Your task to perform on an android device: Show the shopping cart on ebay.com. Add amazon basics triple a to the cart on ebay.com, then select checkout. Image 0: 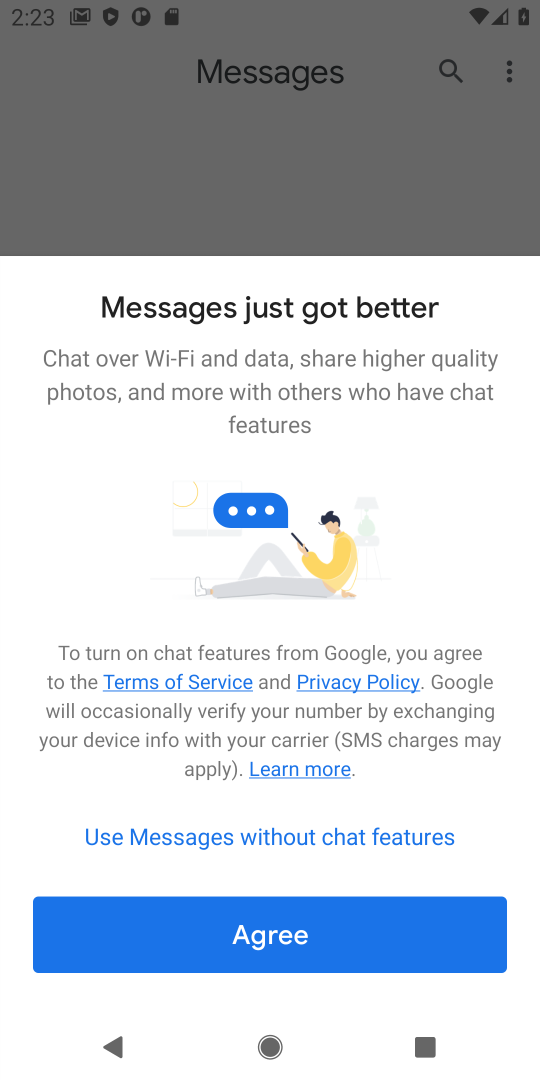
Step 0: press home button
Your task to perform on an android device: Show the shopping cart on ebay.com. Add amazon basics triple a to the cart on ebay.com, then select checkout. Image 1: 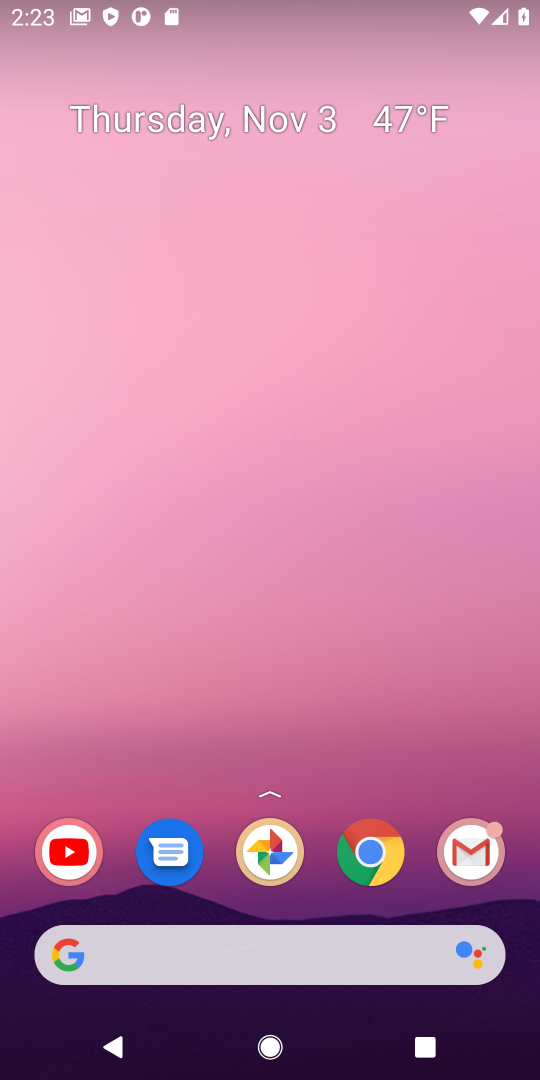
Step 1: click (370, 856)
Your task to perform on an android device: Show the shopping cart on ebay.com. Add amazon basics triple a to the cart on ebay.com, then select checkout. Image 2: 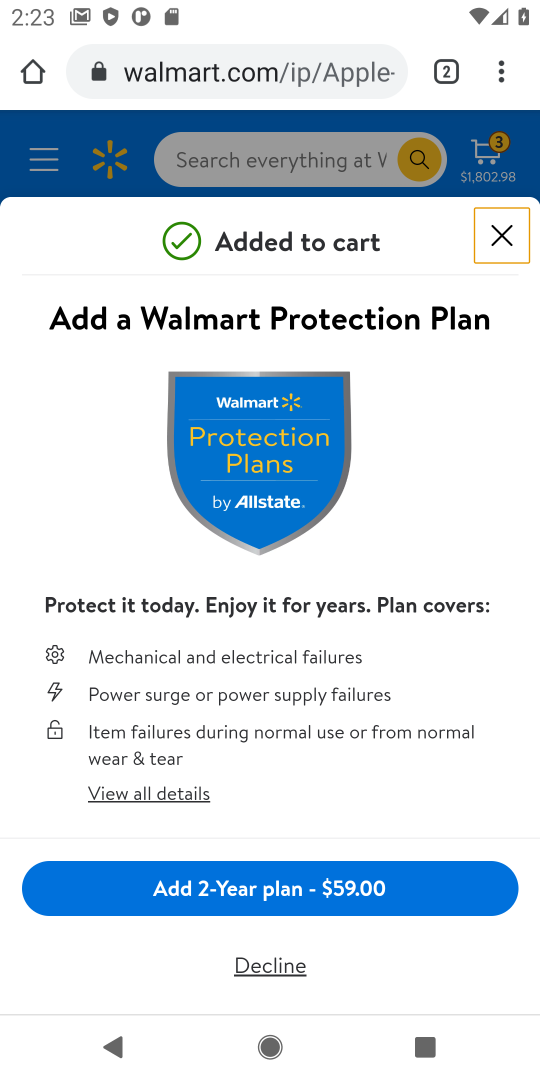
Step 2: click (195, 86)
Your task to perform on an android device: Show the shopping cart on ebay.com. Add amazon basics triple a to the cart on ebay.com, then select checkout. Image 3: 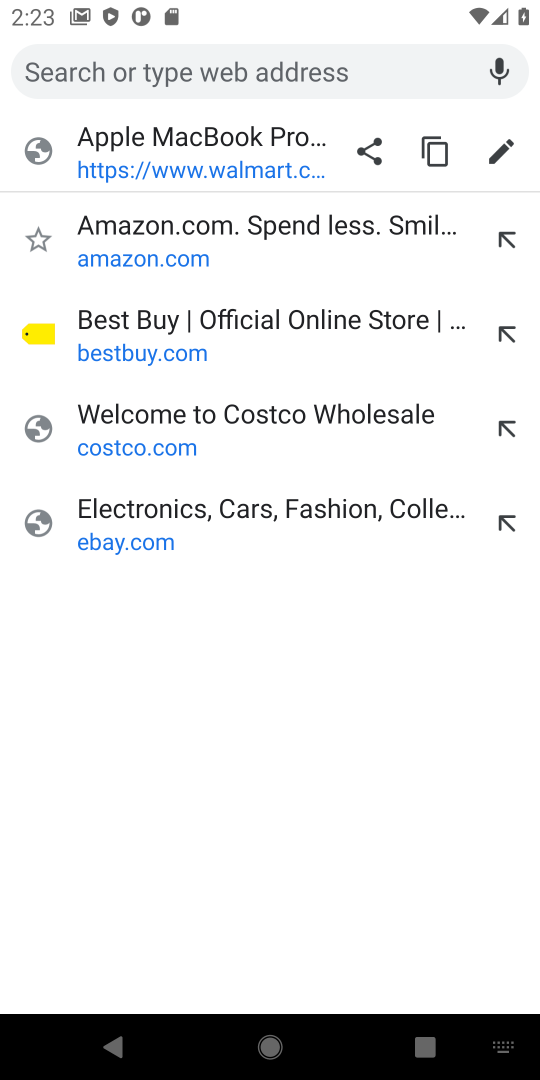
Step 3: click (108, 535)
Your task to perform on an android device: Show the shopping cart on ebay.com. Add amazon basics triple a to the cart on ebay.com, then select checkout. Image 4: 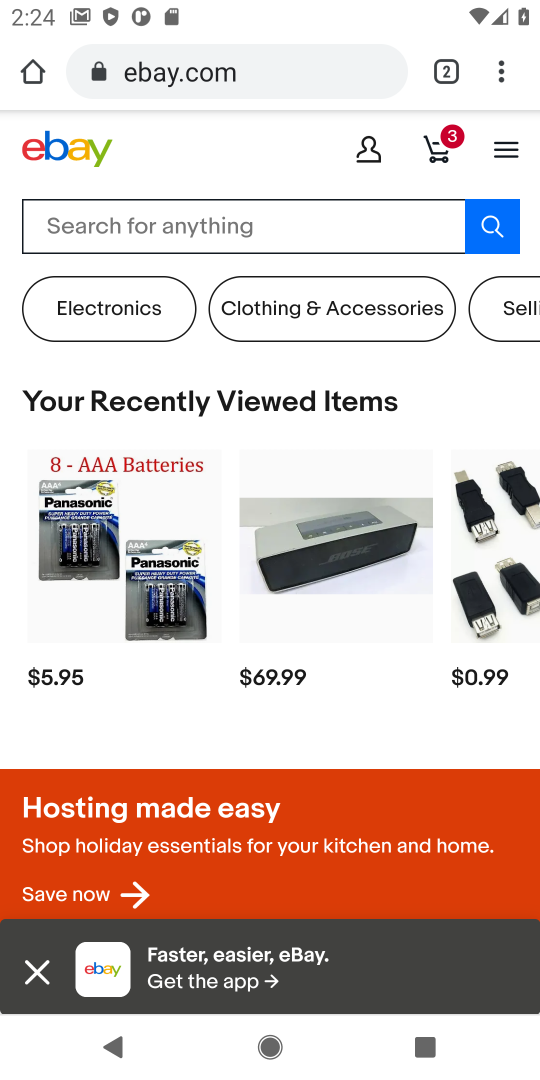
Step 4: click (443, 157)
Your task to perform on an android device: Show the shopping cart on ebay.com. Add amazon basics triple a to the cart on ebay.com, then select checkout. Image 5: 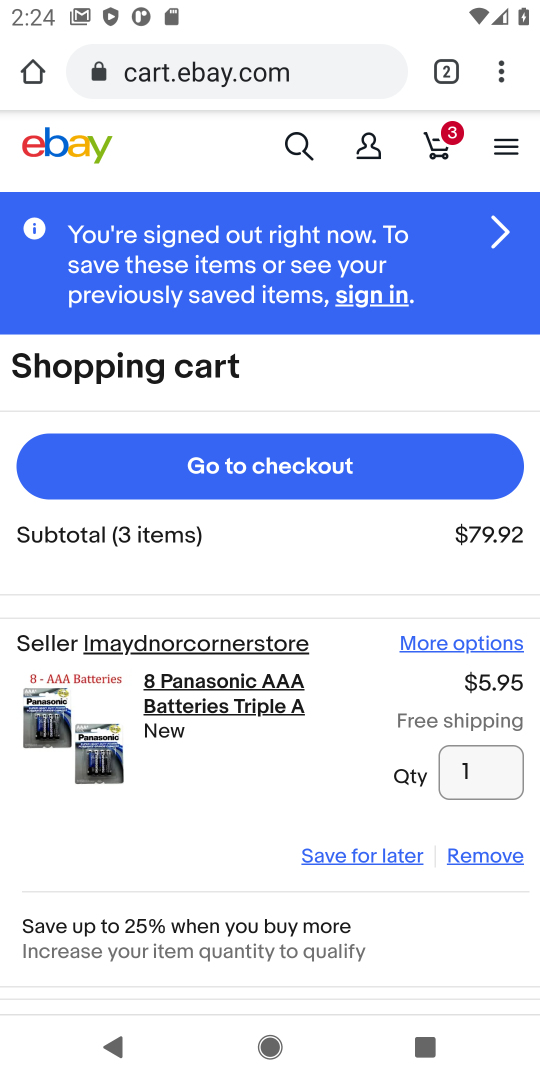
Step 5: click (306, 147)
Your task to perform on an android device: Show the shopping cart on ebay.com. Add amazon basics triple a to the cart on ebay.com, then select checkout. Image 6: 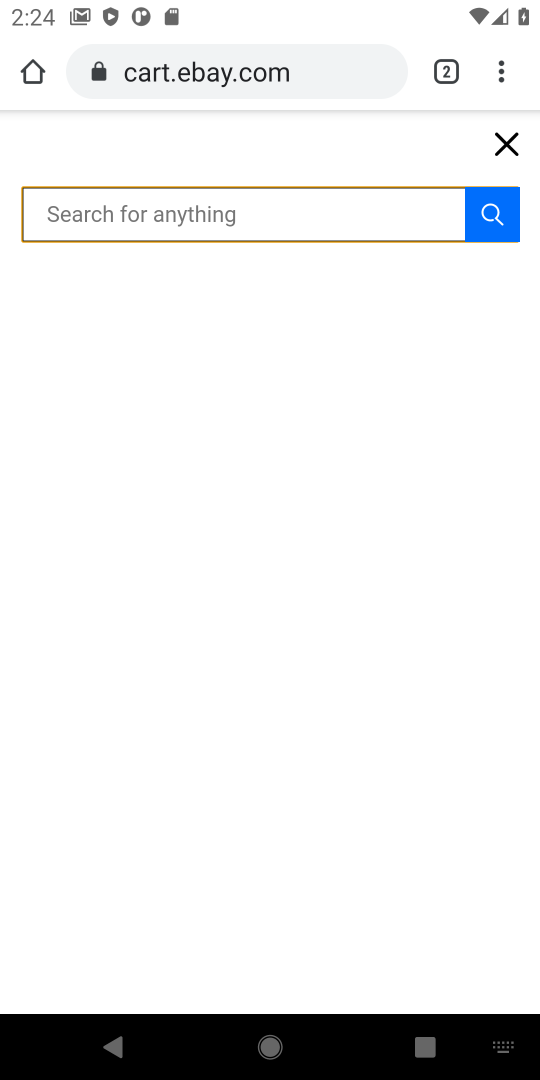
Step 6: type "amazon basics triple a"
Your task to perform on an android device: Show the shopping cart on ebay.com. Add amazon basics triple a to the cart on ebay.com, then select checkout. Image 7: 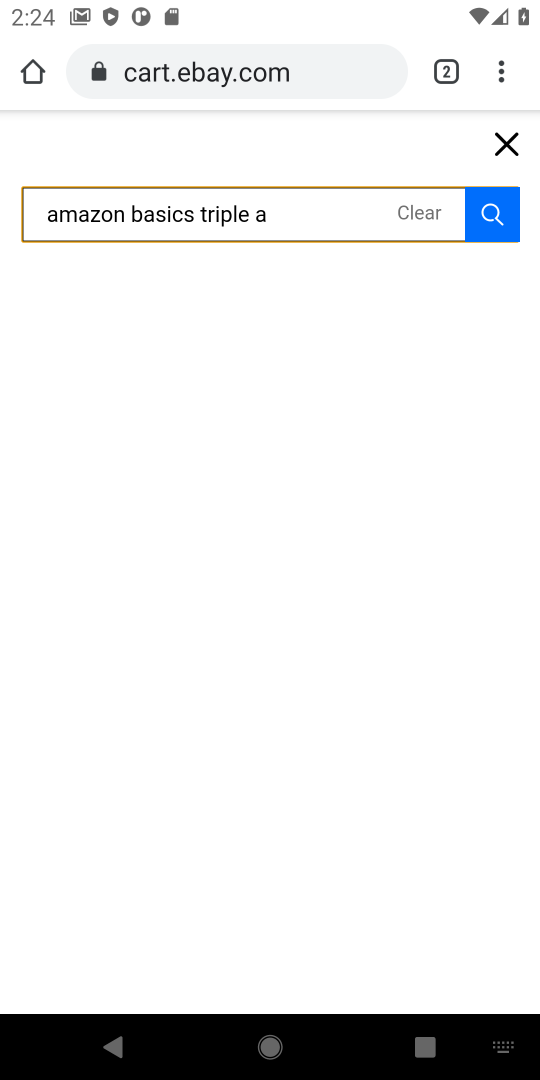
Step 7: click (501, 216)
Your task to perform on an android device: Show the shopping cart on ebay.com. Add amazon basics triple a to the cart on ebay.com, then select checkout. Image 8: 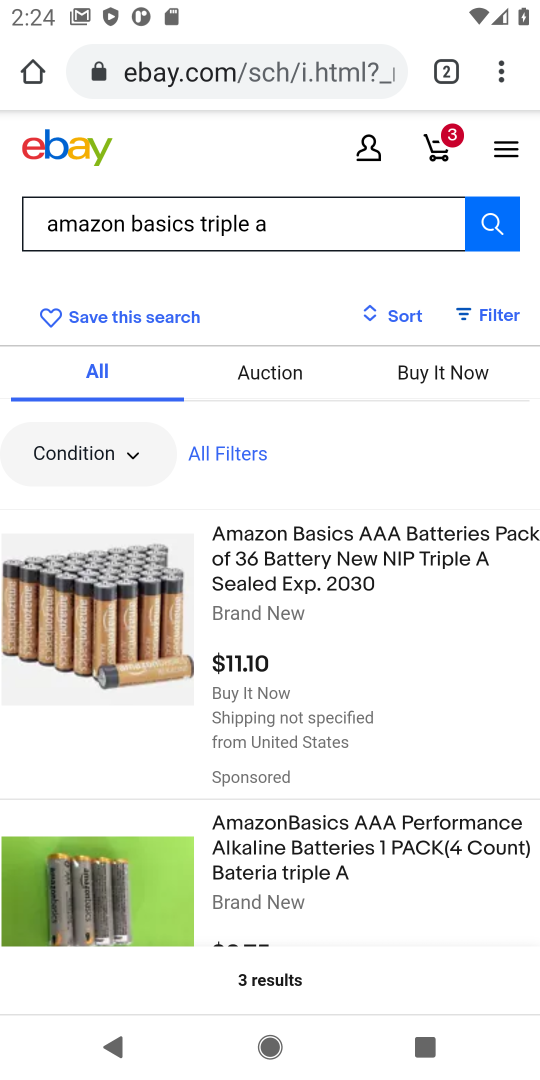
Step 8: click (157, 631)
Your task to perform on an android device: Show the shopping cart on ebay.com. Add amazon basics triple a to the cart on ebay.com, then select checkout. Image 9: 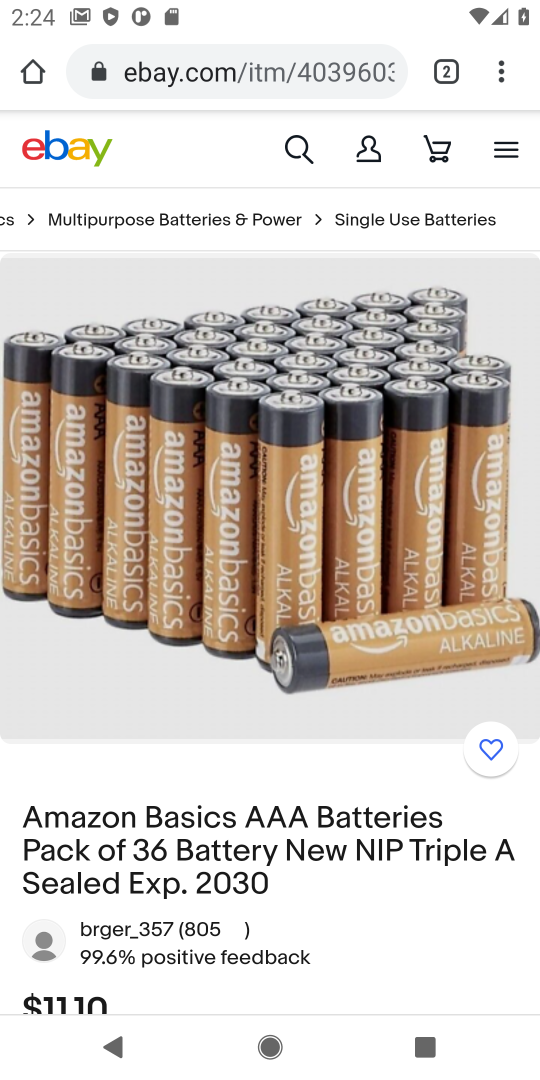
Step 9: drag from (295, 882) to (284, 251)
Your task to perform on an android device: Show the shopping cart on ebay.com. Add amazon basics triple a to the cart on ebay.com, then select checkout. Image 10: 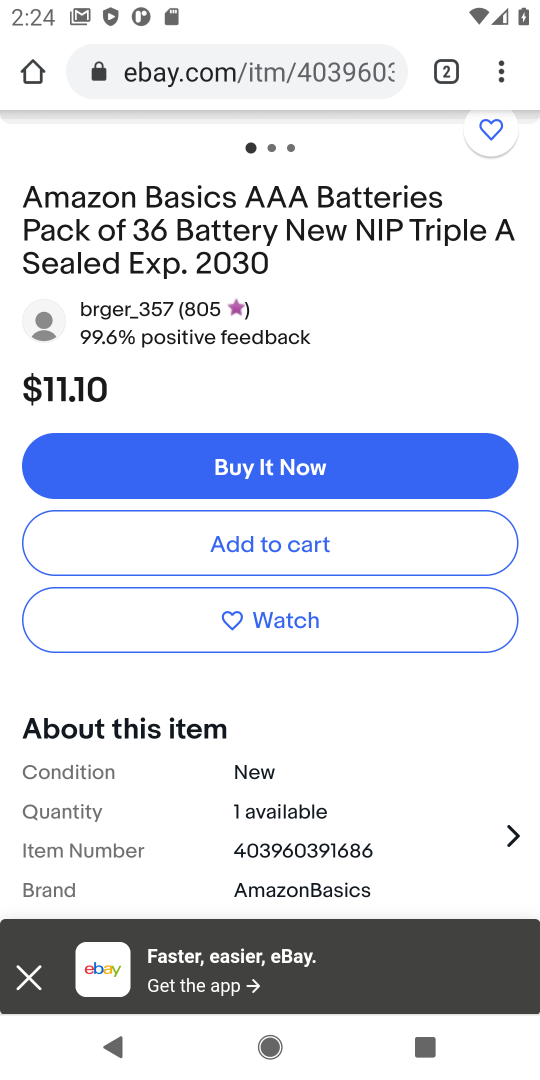
Step 10: click (278, 545)
Your task to perform on an android device: Show the shopping cart on ebay.com. Add amazon basics triple a to the cart on ebay.com, then select checkout. Image 11: 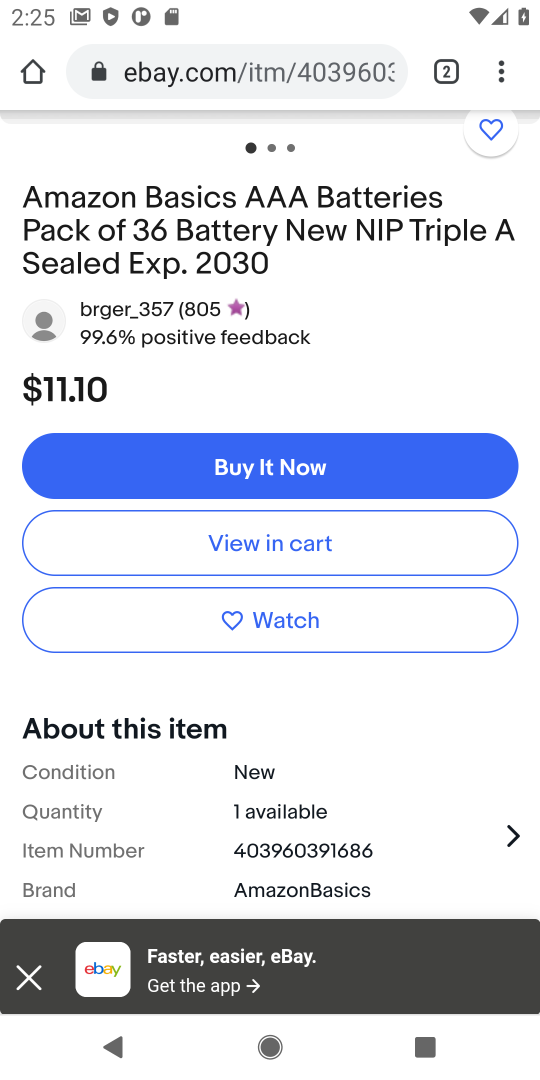
Step 11: click (278, 545)
Your task to perform on an android device: Show the shopping cart on ebay.com. Add amazon basics triple a to the cart on ebay.com, then select checkout. Image 12: 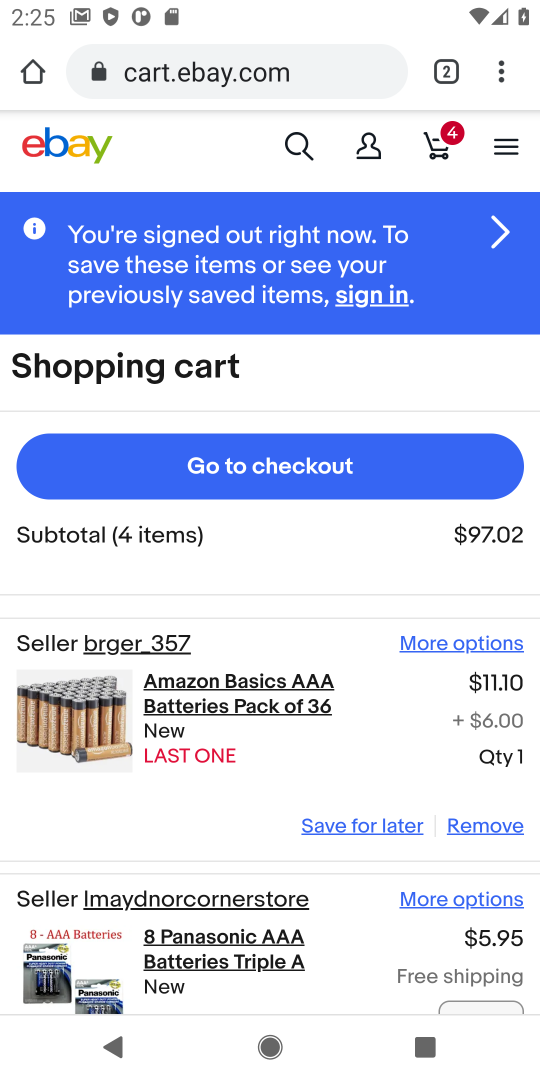
Step 12: click (268, 461)
Your task to perform on an android device: Show the shopping cart on ebay.com. Add amazon basics triple a to the cart on ebay.com, then select checkout. Image 13: 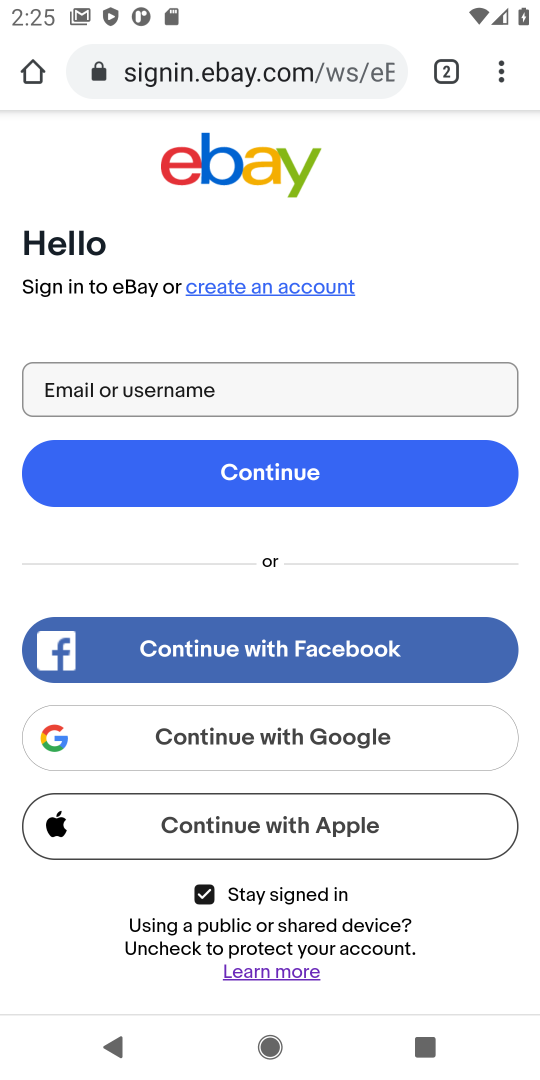
Step 13: task complete